Your task to perform on an android device: turn on the 12-hour format for clock Image 0: 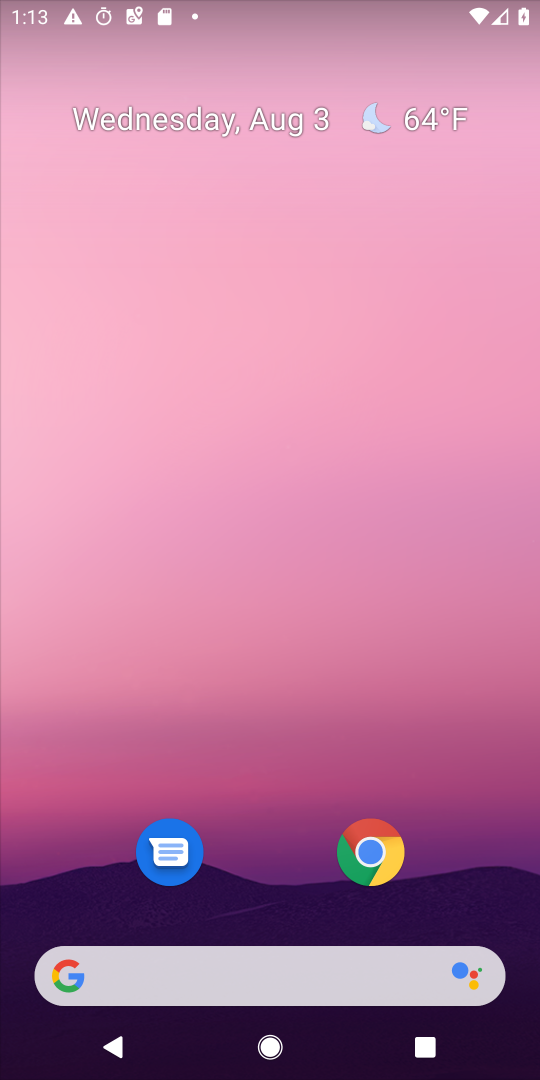
Step 0: drag from (505, 899) to (198, 3)
Your task to perform on an android device: turn on the 12-hour format for clock Image 1: 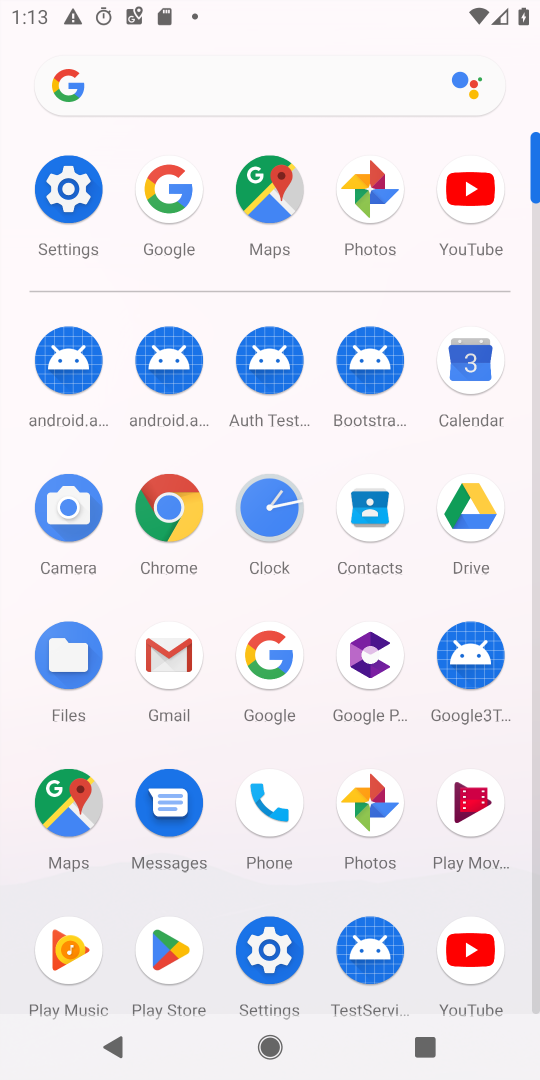
Step 1: click (258, 519)
Your task to perform on an android device: turn on the 12-hour format for clock Image 2: 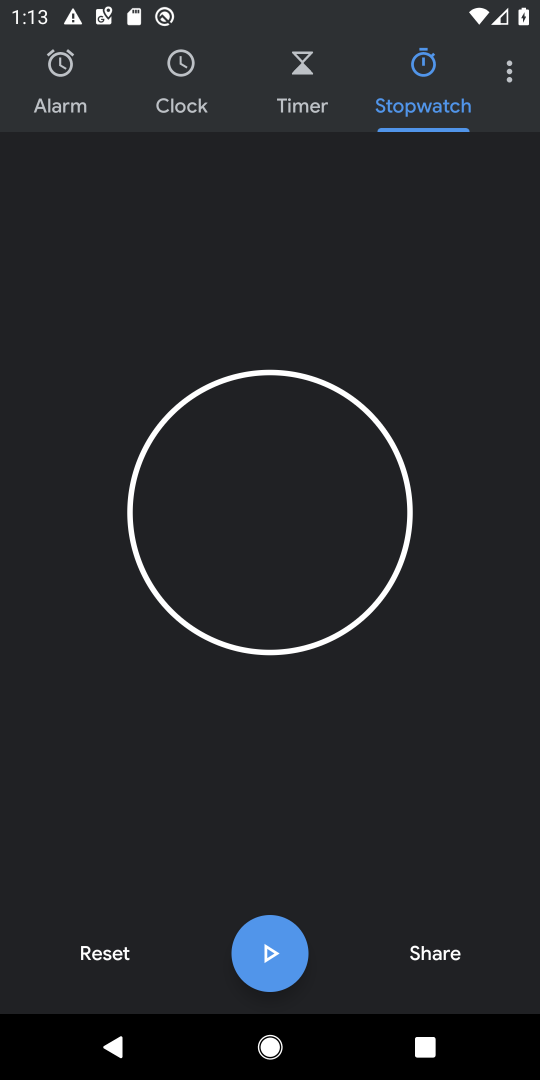
Step 2: click (497, 68)
Your task to perform on an android device: turn on the 12-hour format for clock Image 3: 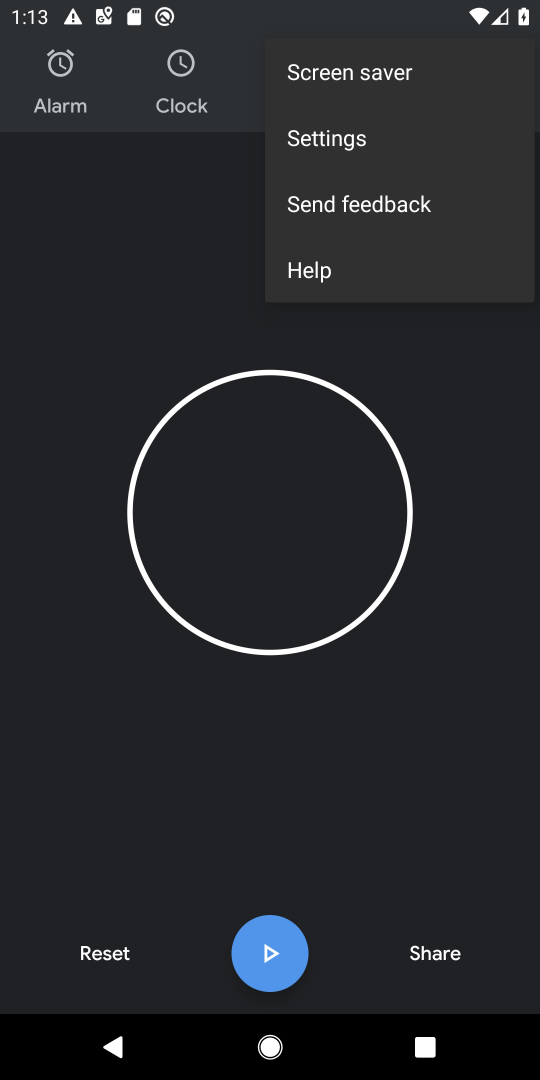
Step 3: click (397, 155)
Your task to perform on an android device: turn on the 12-hour format for clock Image 4: 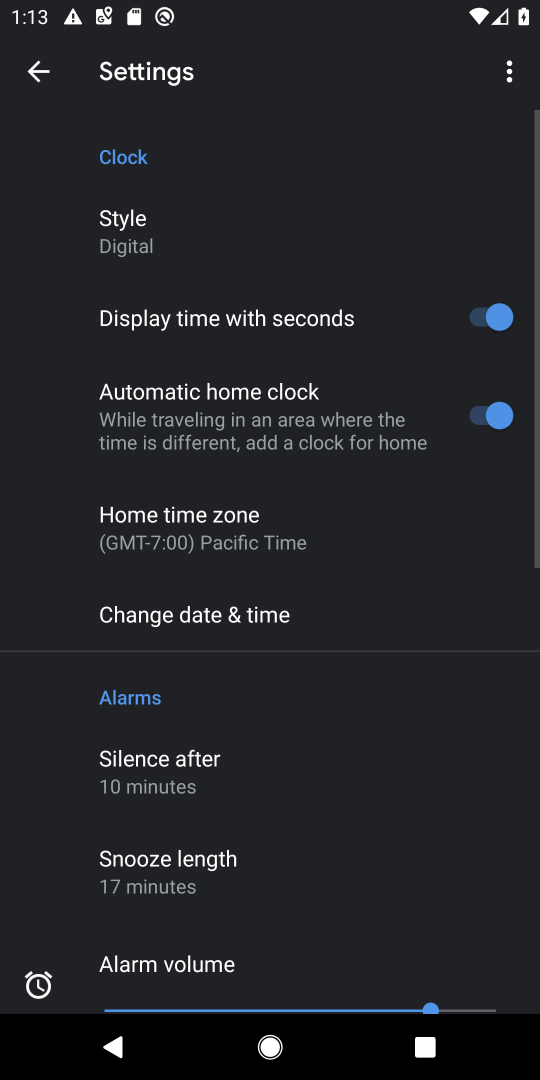
Step 4: click (191, 597)
Your task to perform on an android device: turn on the 12-hour format for clock Image 5: 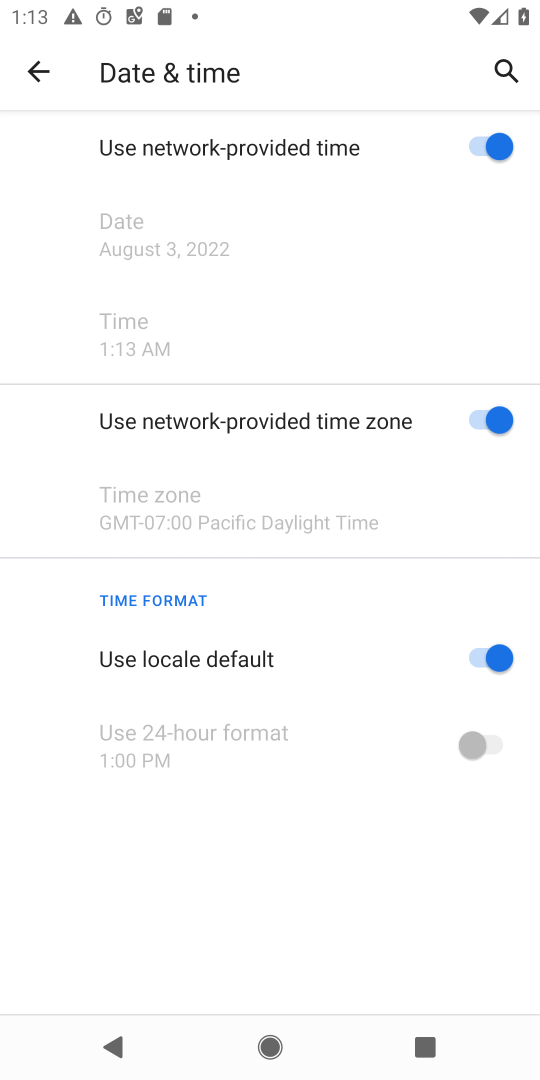
Step 5: task complete